Your task to perform on an android device: toggle pop-ups in chrome Image 0: 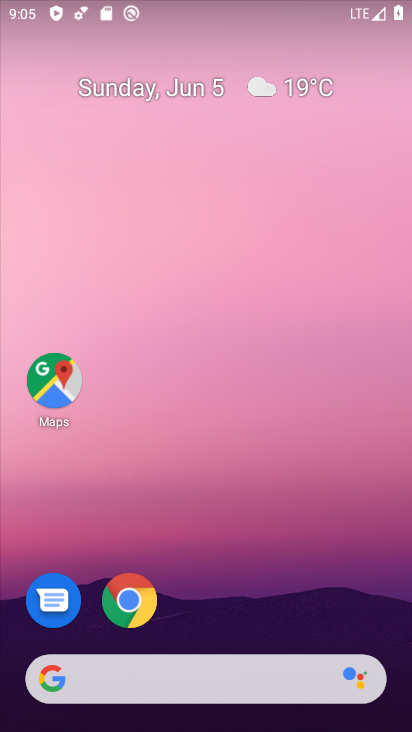
Step 0: drag from (217, 660) to (197, 326)
Your task to perform on an android device: toggle pop-ups in chrome Image 1: 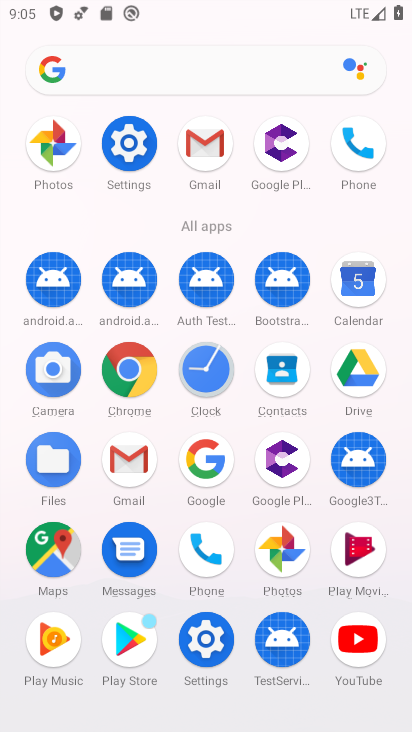
Step 1: click (138, 406)
Your task to perform on an android device: toggle pop-ups in chrome Image 2: 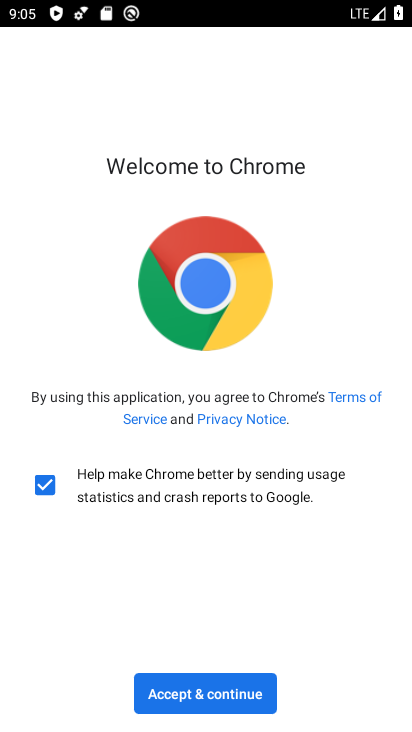
Step 2: click (208, 670)
Your task to perform on an android device: toggle pop-ups in chrome Image 3: 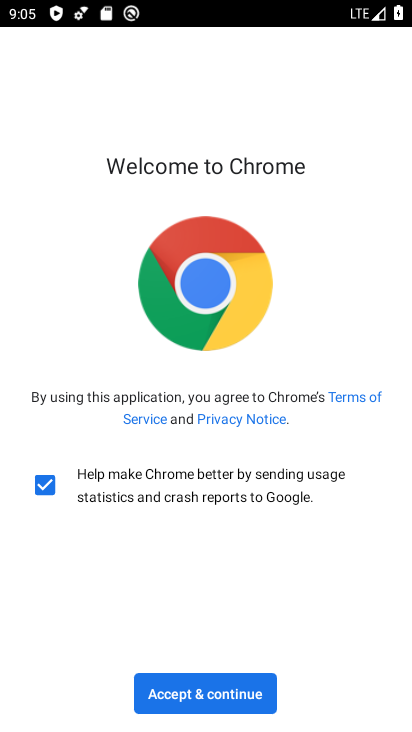
Step 3: click (211, 690)
Your task to perform on an android device: toggle pop-ups in chrome Image 4: 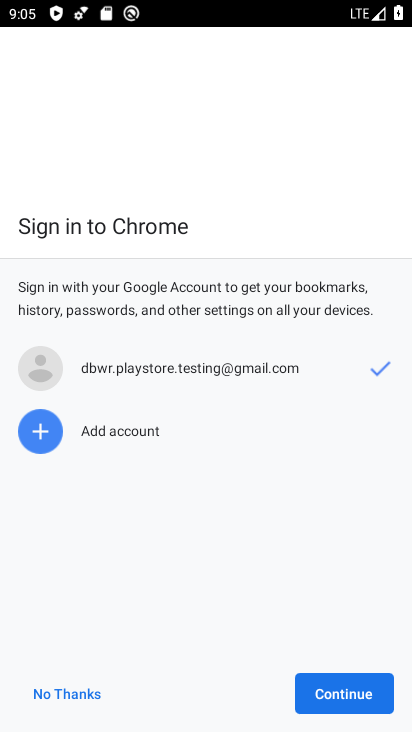
Step 4: click (387, 709)
Your task to perform on an android device: toggle pop-ups in chrome Image 5: 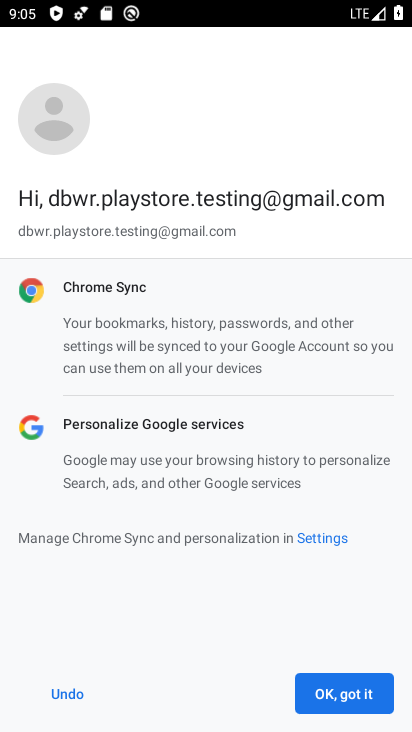
Step 5: click (383, 709)
Your task to perform on an android device: toggle pop-ups in chrome Image 6: 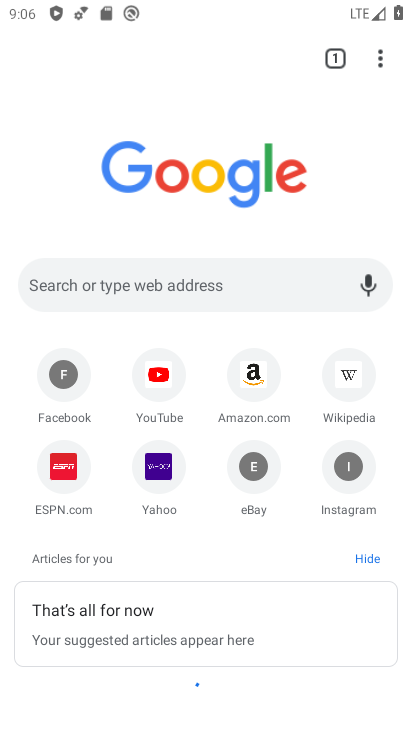
Step 6: click (376, 74)
Your task to perform on an android device: toggle pop-ups in chrome Image 7: 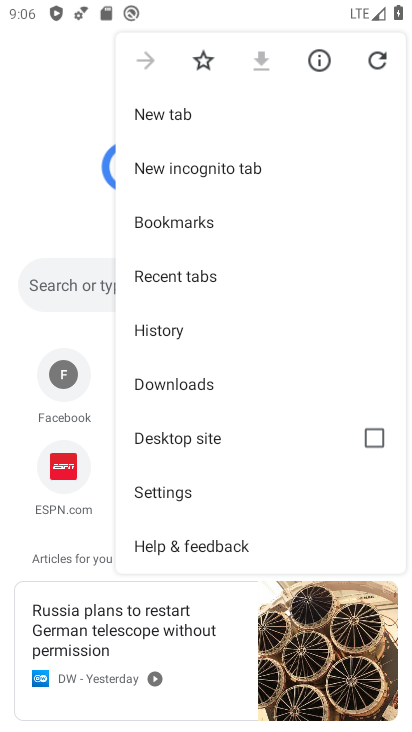
Step 7: click (242, 487)
Your task to perform on an android device: toggle pop-ups in chrome Image 8: 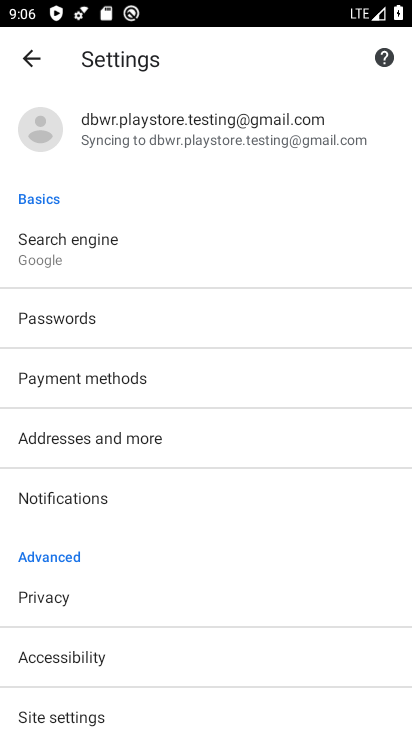
Step 8: drag from (199, 610) to (174, 237)
Your task to perform on an android device: toggle pop-ups in chrome Image 9: 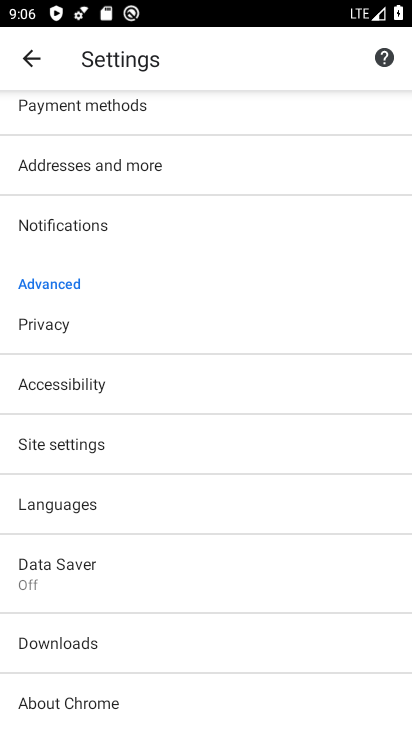
Step 9: click (100, 462)
Your task to perform on an android device: toggle pop-ups in chrome Image 10: 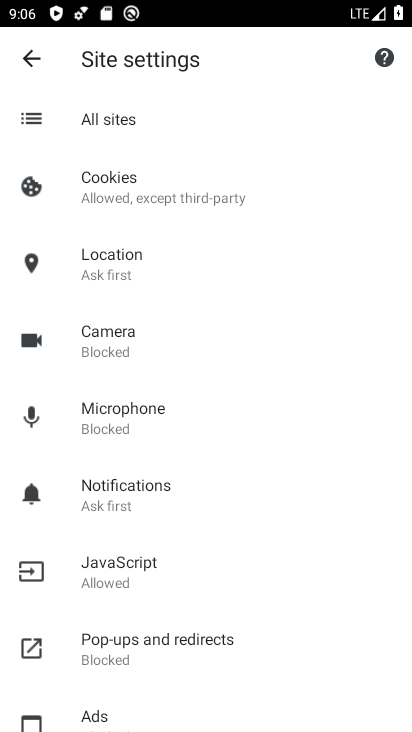
Step 10: click (193, 642)
Your task to perform on an android device: toggle pop-ups in chrome Image 11: 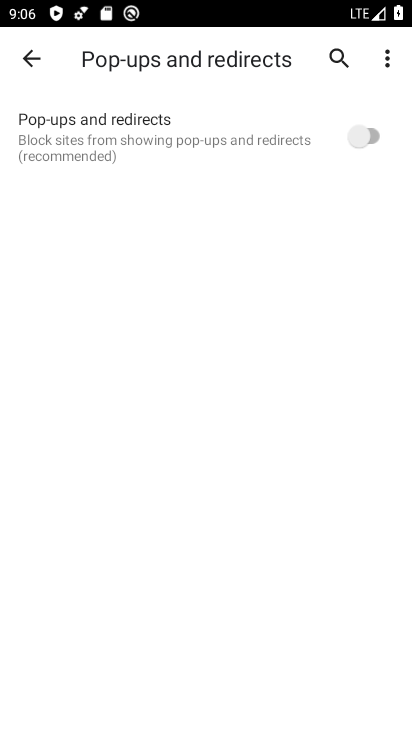
Step 11: click (371, 133)
Your task to perform on an android device: toggle pop-ups in chrome Image 12: 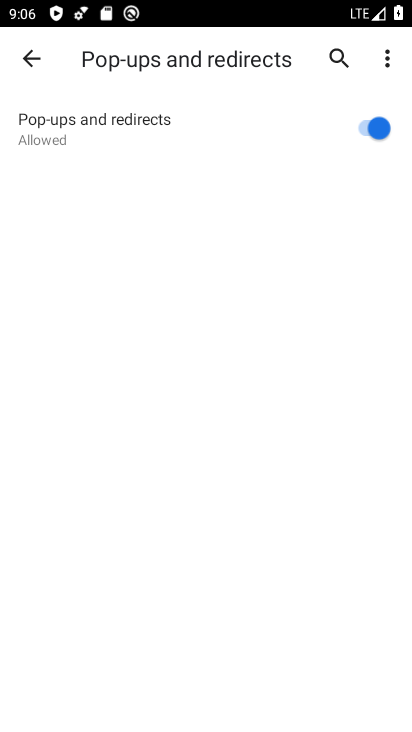
Step 12: task complete